Your task to perform on an android device: Search for Mexican restaurants on Maps Image 0: 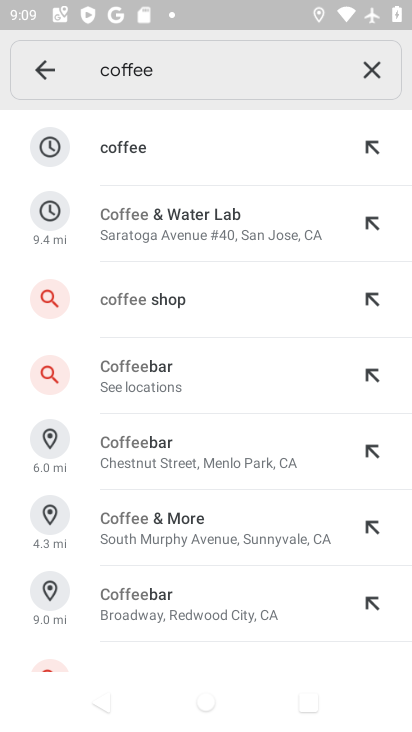
Step 0: click (391, 71)
Your task to perform on an android device: Search for Mexican restaurants on Maps Image 1: 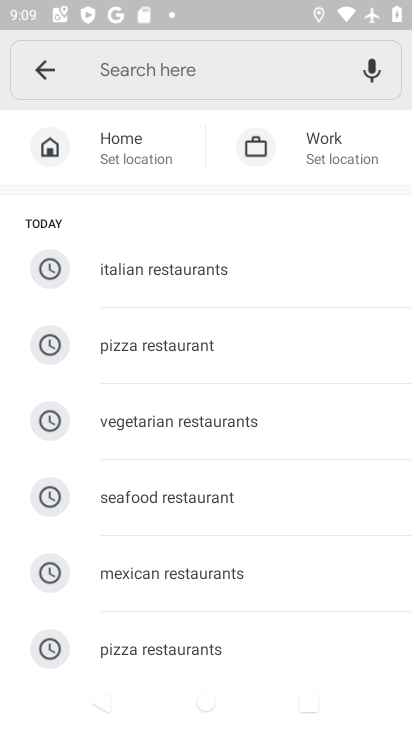
Step 1: click (222, 571)
Your task to perform on an android device: Search for Mexican restaurants on Maps Image 2: 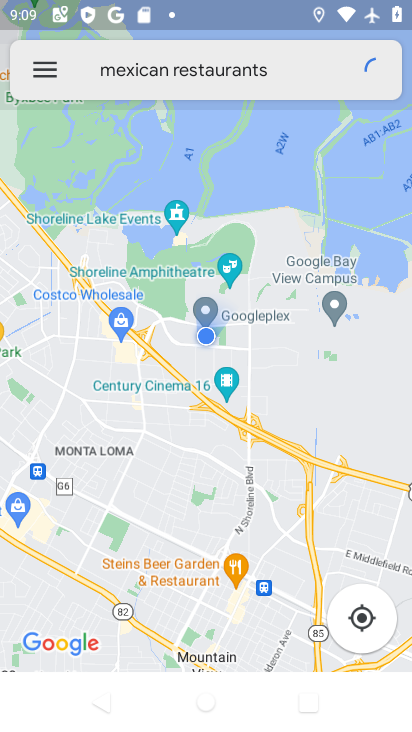
Step 2: task complete